Your task to perform on an android device: see tabs open on other devices in the chrome app Image 0: 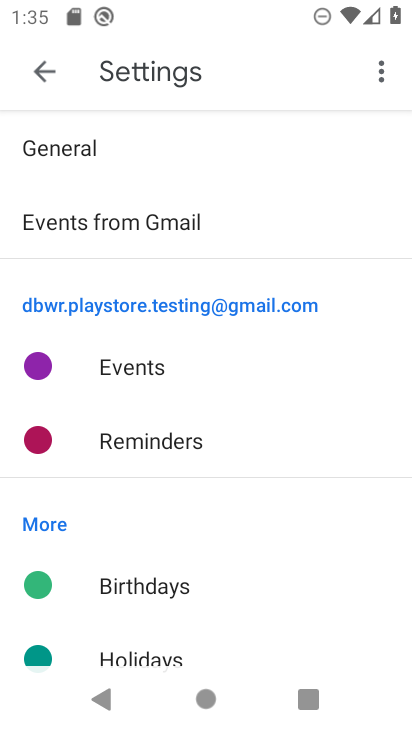
Step 0: press home button
Your task to perform on an android device: see tabs open on other devices in the chrome app Image 1: 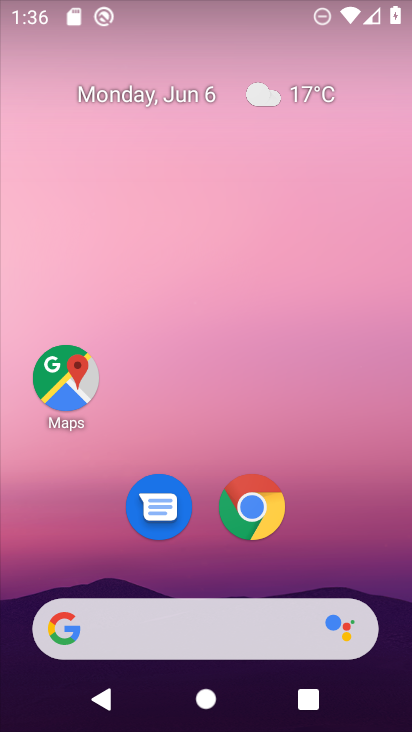
Step 1: drag from (207, 674) to (201, 226)
Your task to perform on an android device: see tabs open on other devices in the chrome app Image 2: 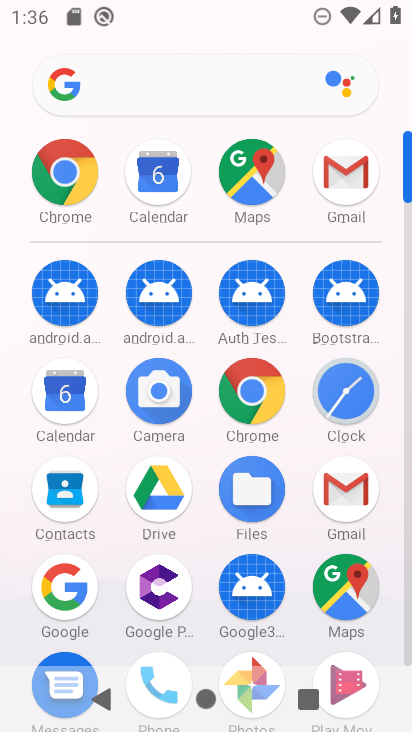
Step 2: click (94, 146)
Your task to perform on an android device: see tabs open on other devices in the chrome app Image 3: 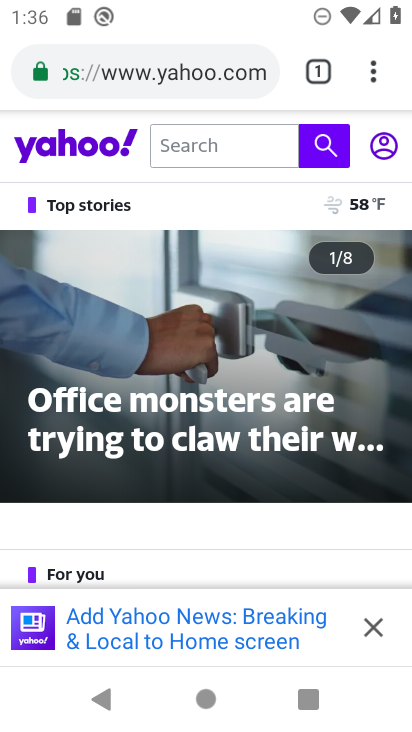
Step 3: click (327, 68)
Your task to perform on an android device: see tabs open on other devices in the chrome app Image 4: 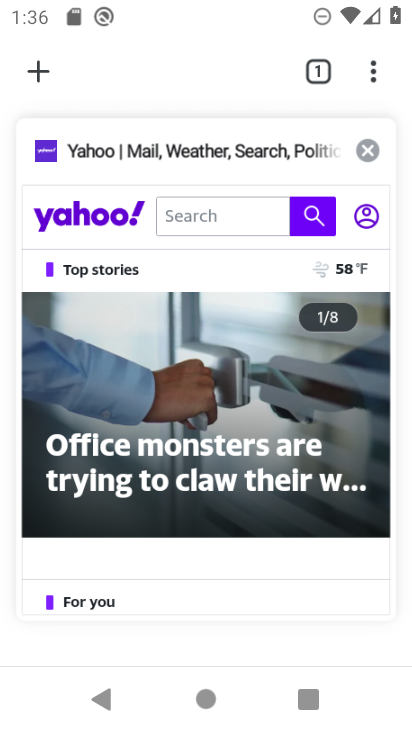
Step 4: click (39, 75)
Your task to perform on an android device: see tabs open on other devices in the chrome app Image 5: 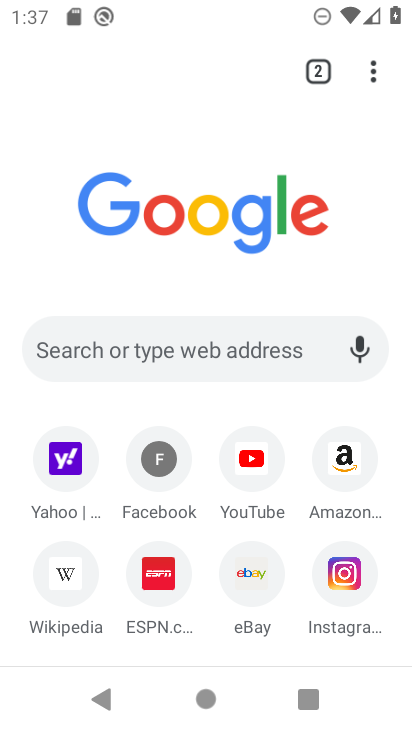
Step 5: task complete